Your task to perform on an android device: View the shopping cart on bestbuy.com. Add razer blade to the cart on bestbuy.com, then select checkout. Image 0: 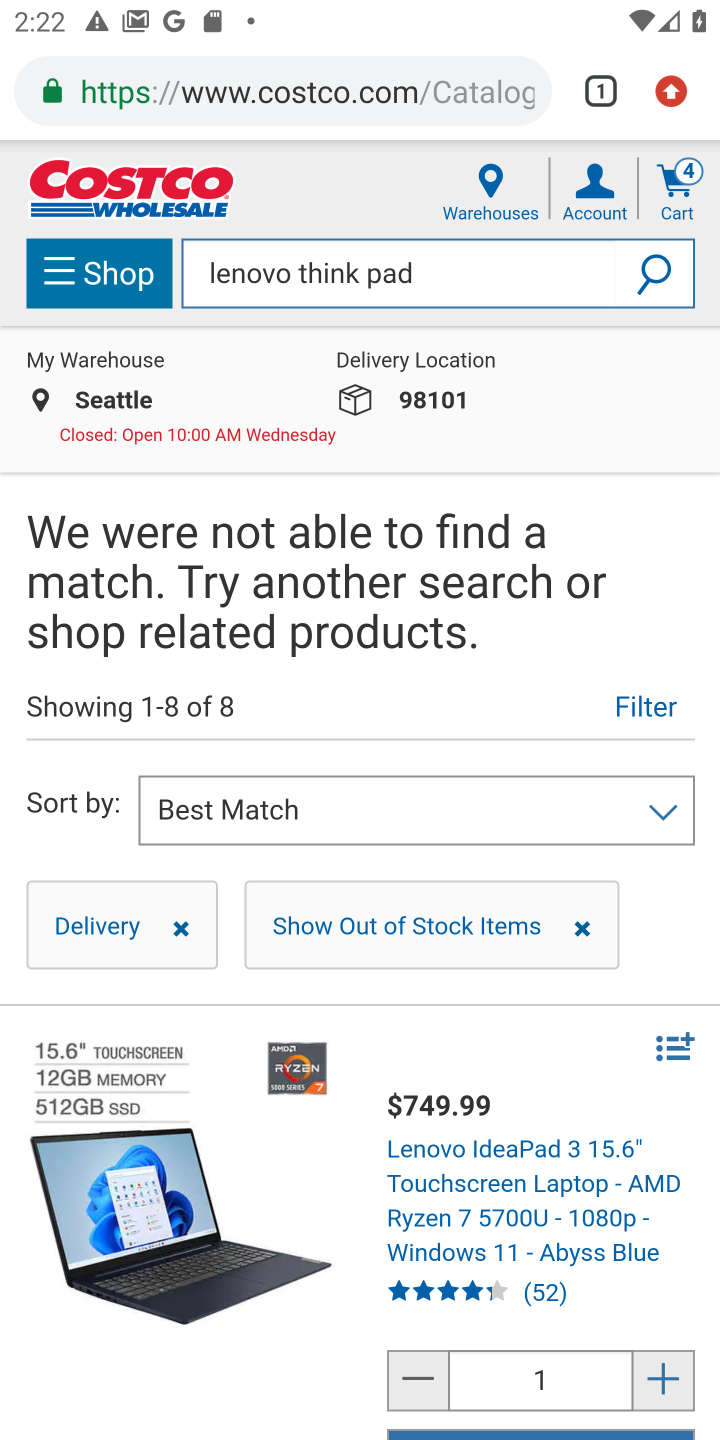
Step 0: task complete